Your task to perform on an android device: manage bookmarks in the chrome app Image 0: 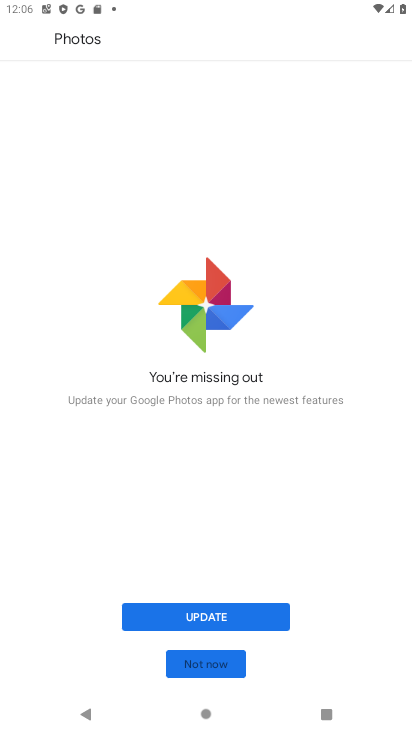
Step 0: press home button
Your task to perform on an android device: manage bookmarks in the chrome app Image 1: 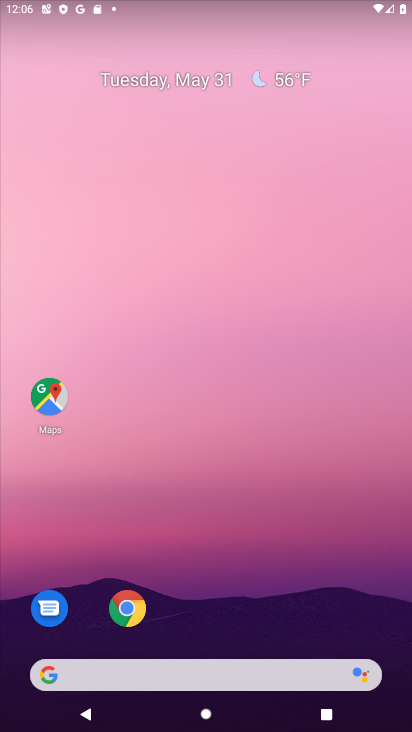
Step 1: click (130, 607)
Your task to perform on an android device: manage bookmarks in the chrome app Image 2: 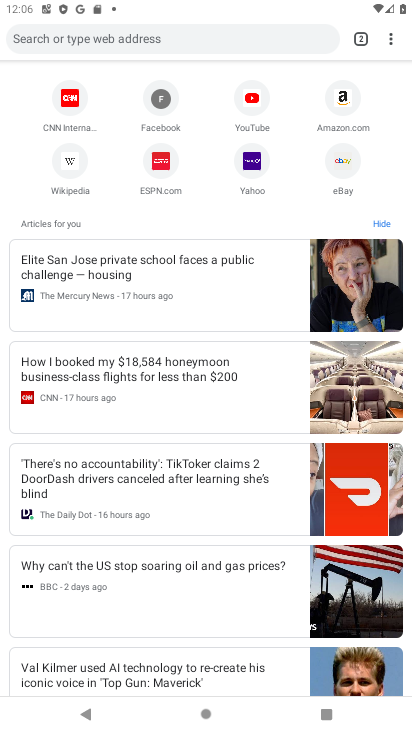
Step 2: click (384, 43)
Your task to perform on an android device: manage bookmarks in the chrome app Image 3: 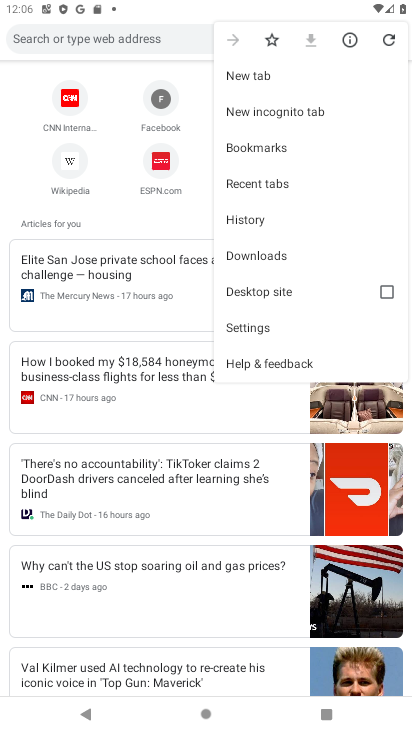
Step 3: click (253, 152)
Your task to perform on an android device: manage bookmarks in the chrome app Image 4: 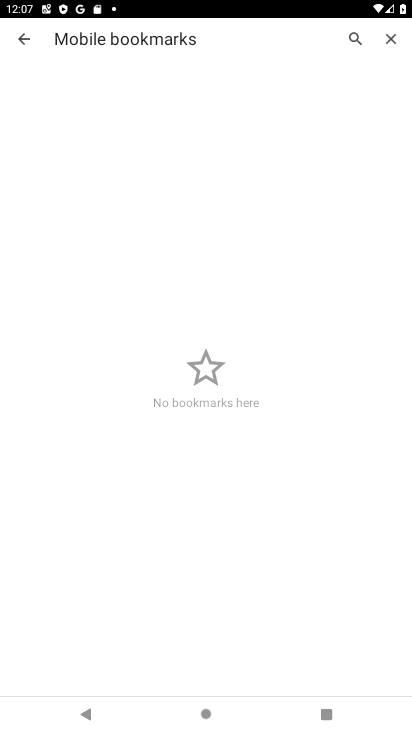
Step 4: task complete